Your task to perform on an android device: What is the recent news? Image 0: 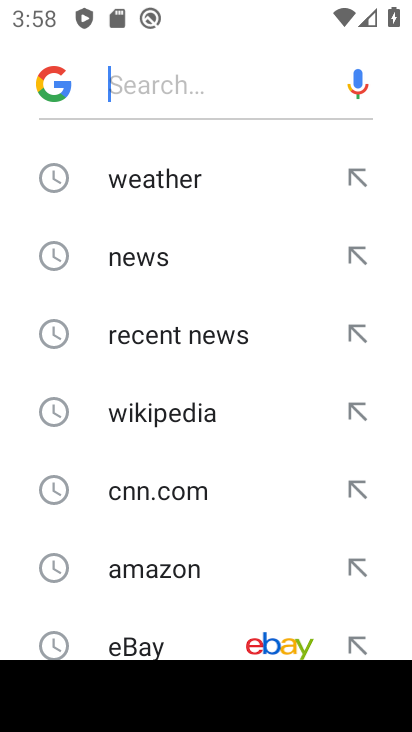
Step 0: press home button
Your task to perform on an android device: What is the recent news? Image 1: 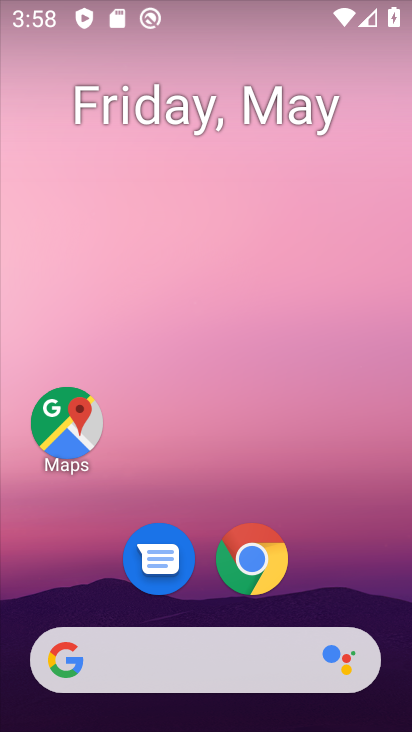
Step 1: click (214, 667)
Your task to perform on an android device: What is the recent news? Image 2: 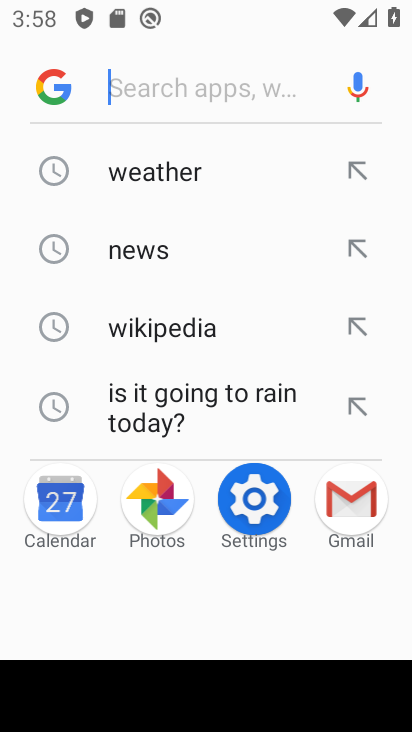
Step 2: type "recent news"
Your task to perform on an android device: What is the recent news? Image 3: 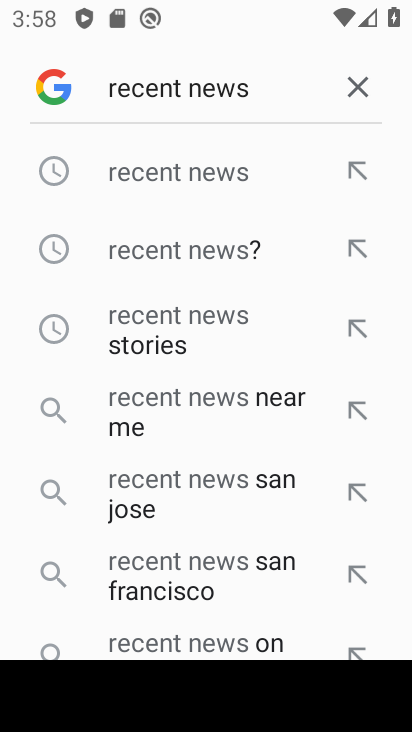
Step 3: click (174, 194)
Your task to perform on an android device: What is the recent news? Image 4: 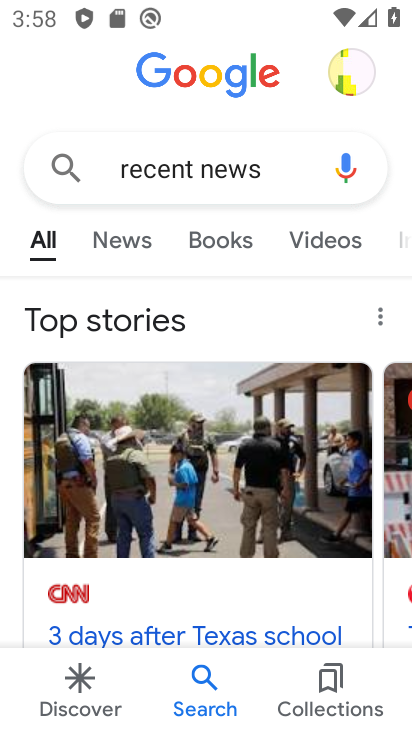
Step 4: task complete